Your task to perform on an android device: Open privacy settings Image 0: 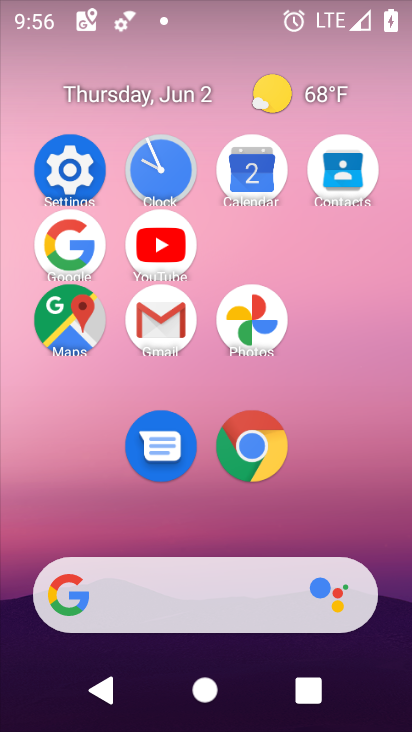
Step 0: click (91, 159)
Your task to perform on an android device: Open privacy settings Image 1: 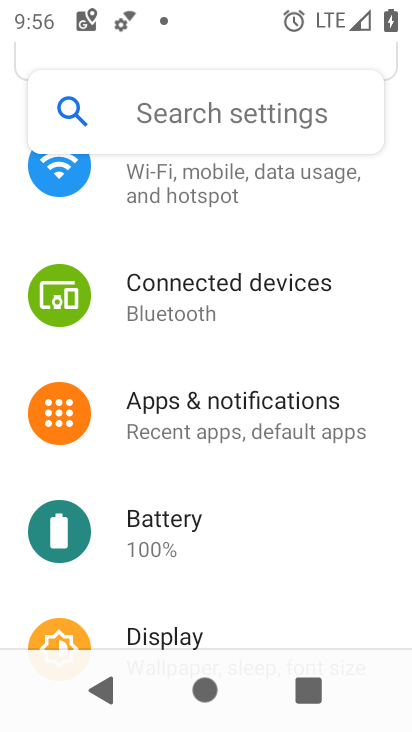
Step 1: drag from (211, 601) to (217, 204)
Your task to perform on an android device: Open privacy settings Image 2: 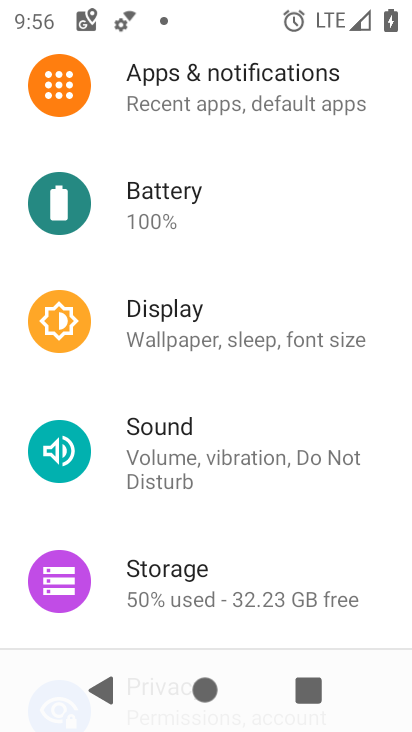
Step 2: drag from (193, 576) to (220, 238)
Your task to perform on an android device: Open privacy settings Image 3: 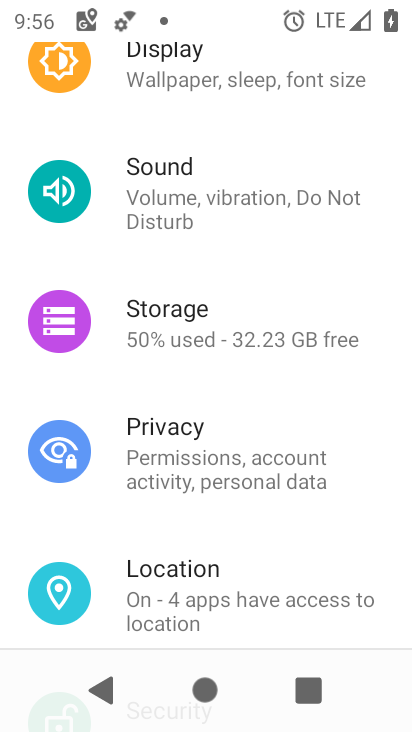
Step 3: click (238, 444)
Your task to perform on an android device: Open privacy settings Image 4: 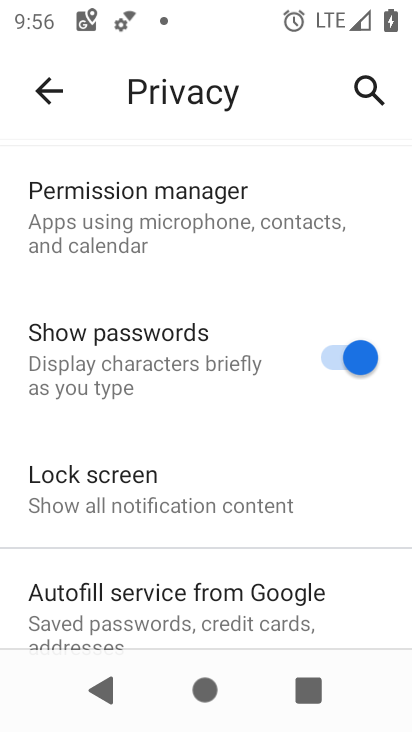
Step 4: task complete